Your task to perform on an android device: Open sound settings Image 0: 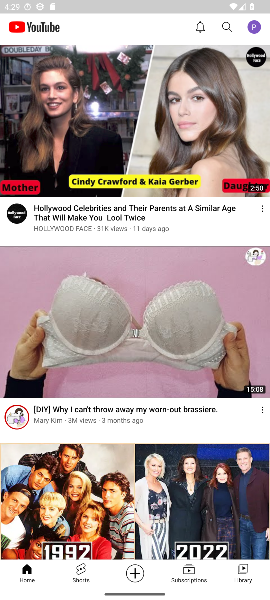
Step 0: press home button
Your task to perform on an android device: Open sound settings Image 1: 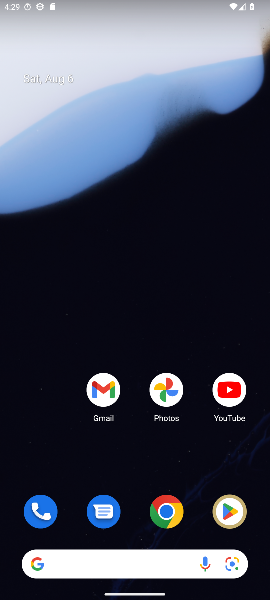
Step 1: drag from (110, 210) to (70, 73)
Your task to perform on an android device: Open sound settings Image 2: 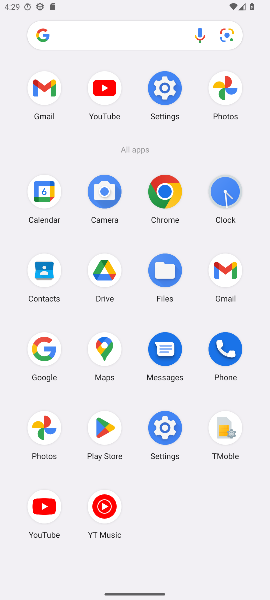
Step 2: click (168, 100)
Your task to perform on an android device: Open sound settings Image 3: 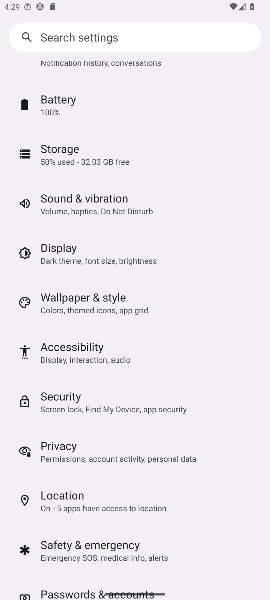
Step 3: drag from (110, 149) to (115, 543)
Your task to perform on an android device: Open sound settings Image 4: 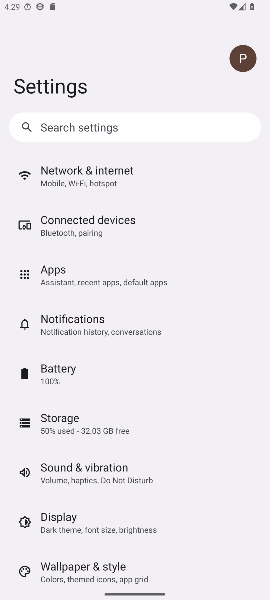
Step 4: click (81, 475)
Your task to perform on an android device: Open sound settings Image 5: 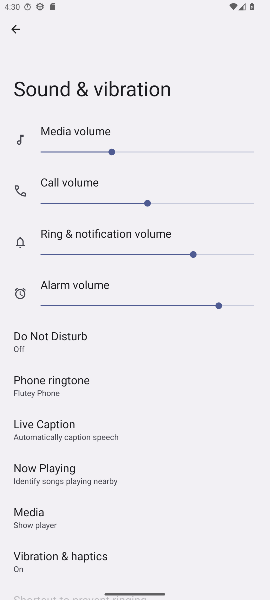
Step 5: task complete